Your task to perform on an android device: delete a single message in the gmail app Image 0: 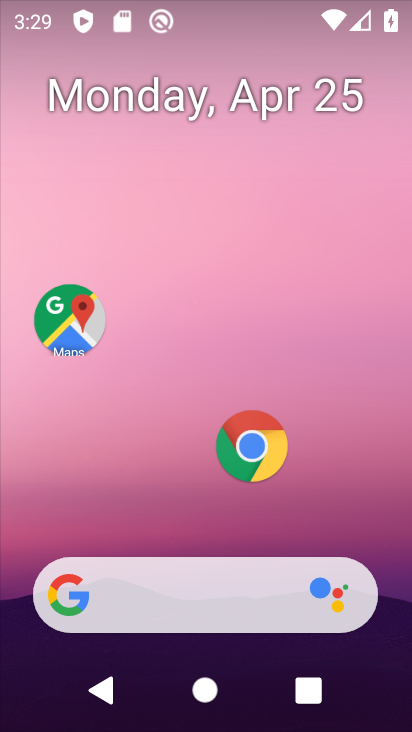
Step 0: drag from (199, 543) to (203, 374)
Your task to perform on an android device: delete a single message in the gmail app Image 1: 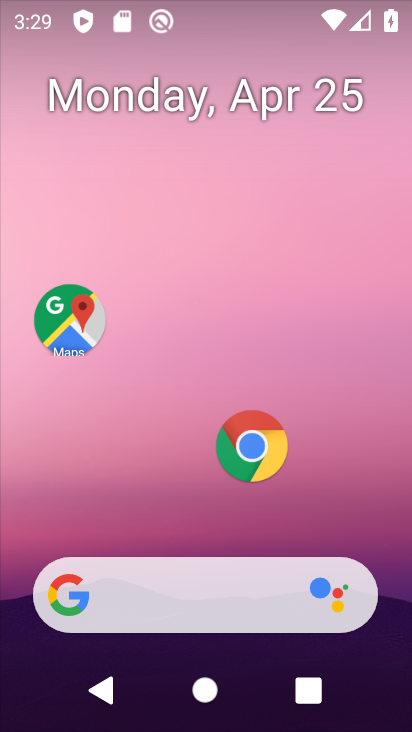
Step 1: drag from (162, 535) to (207, 42)
Your task to perform on an android device: delete a single message in the gmail app Image 2: 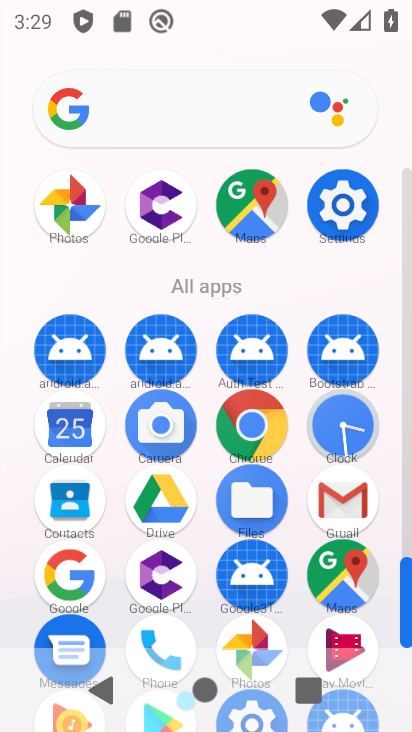
Step 2: click (348, 507)
Your task to perform on an android device: delete a single message in the gmail app Image 3: 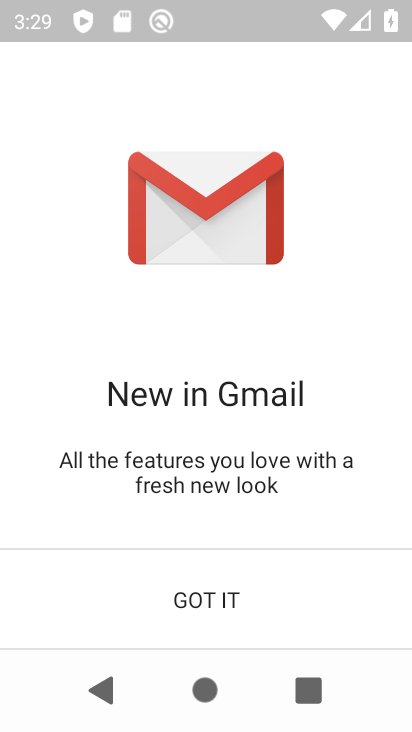
Step 3: click (191, 591)
Your task to perform on an android device: delete a single message in the gmail app Image 4: 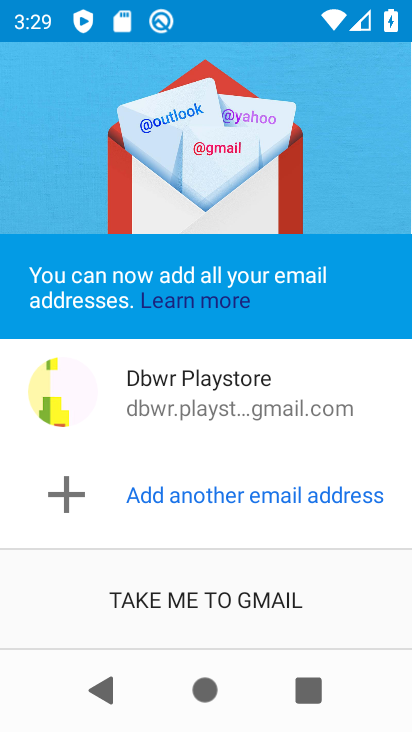
Step 4: click (191, 591)
Your task to perform on an android device: delete a single message in the gmail app Image 5: 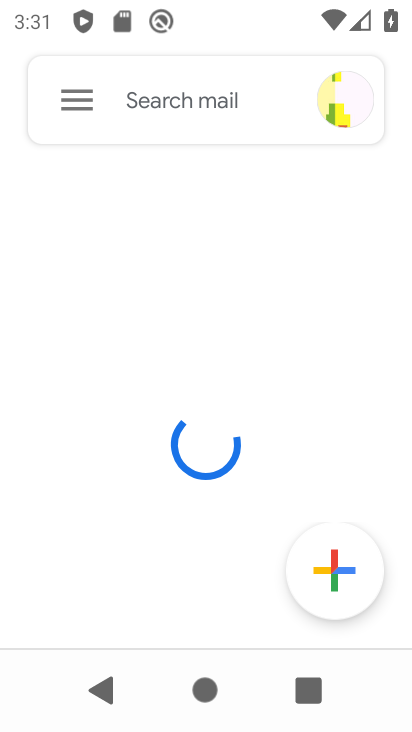
Step 5: task complete